Your task to perform on an android device: empty trash in the gmail app Image 0: 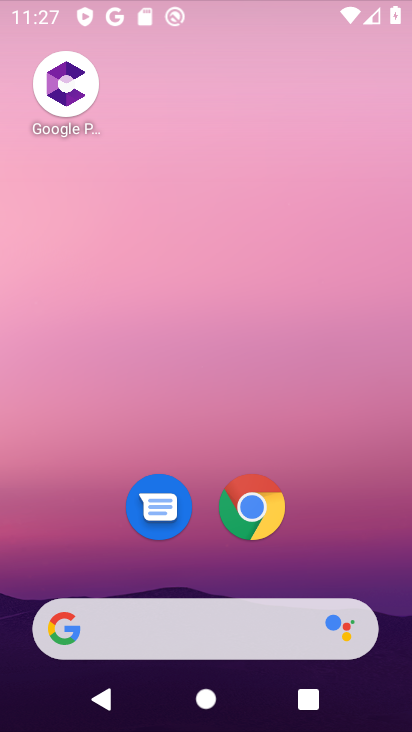
Step 0: press home button
Your task to perform on an android device: empty trash in the gmail app Image 1: 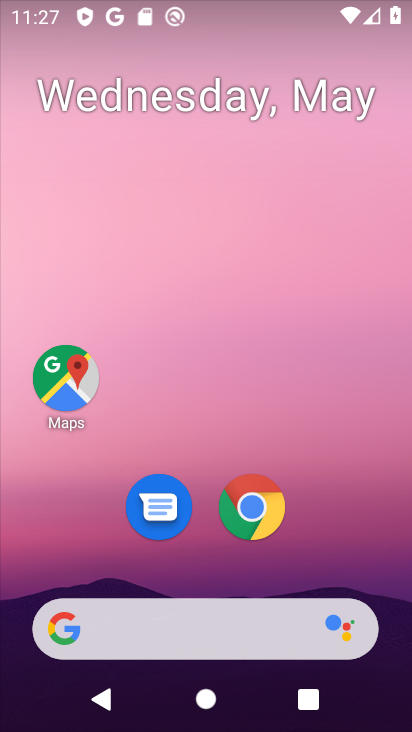
Step 1: drag from (355, 562) to (352, 116)
Your task to perform on an android device: empty trash in the gmail app Image 2: 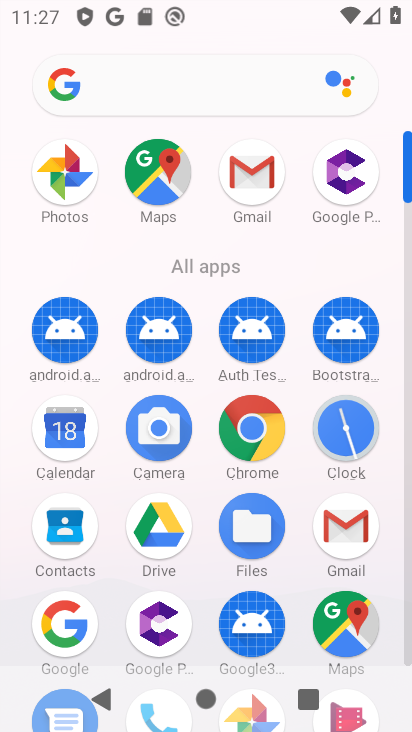
Step 2: click (229, 197)
Your task to perform on an android device: empty trash in the gmail app Image 3: 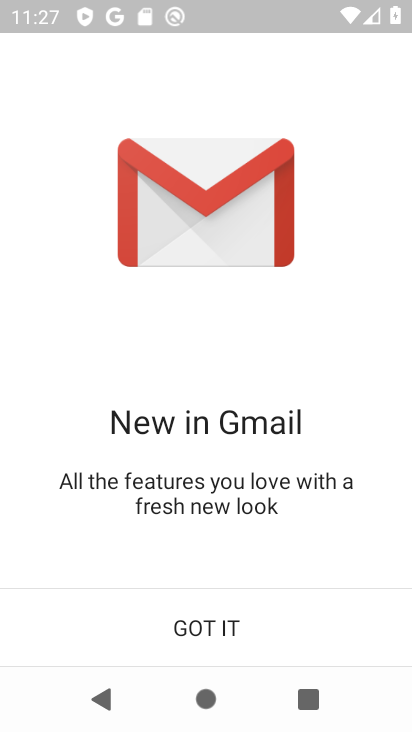
Step 3: click (231, 638)
Your task to perform on an android device: empty trash in the gmail app Image 4: 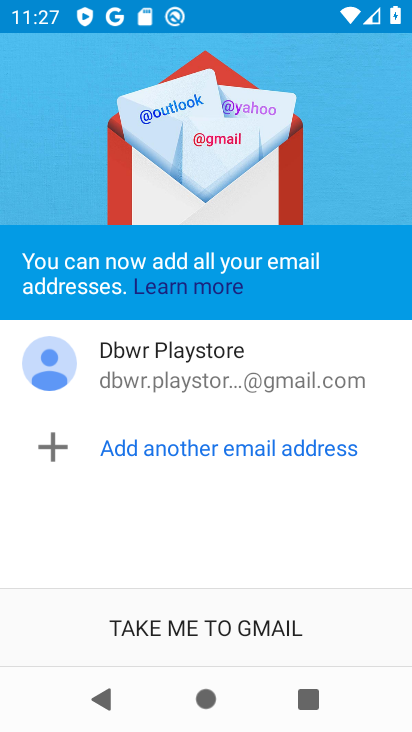
Step 4: click (231, 638)
Your task to perform on an android device: empty trash in the gmail app Image 5: 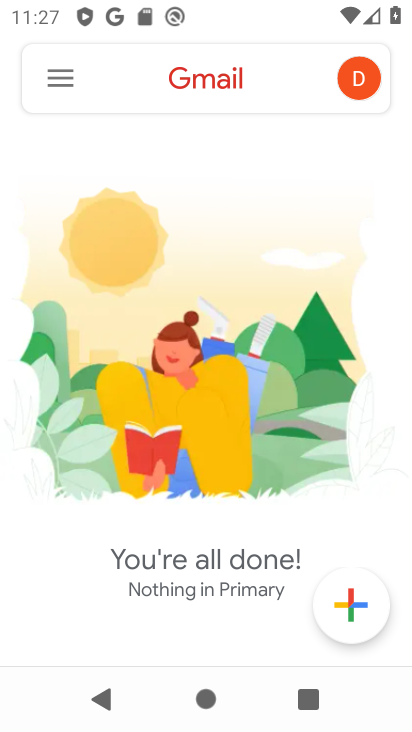
Step 5: click (55, 68)
Your task to perform on an android device: empty trash in the gmail app Image 6: 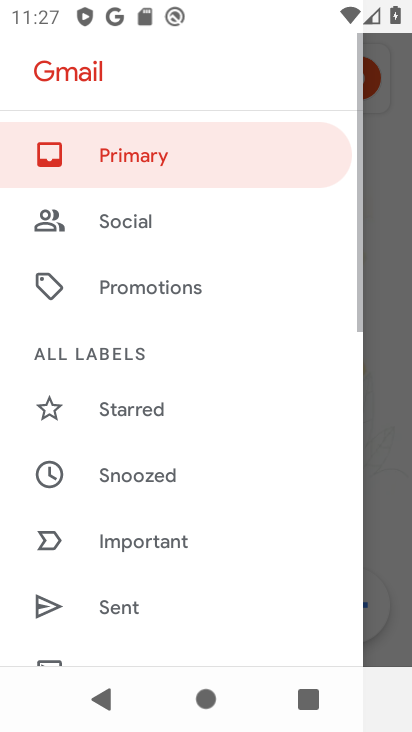
Step 6: drag from (142, 564) to (154, 221)
Your task to perform on an android device: empty trash in the gmail app Image 7: 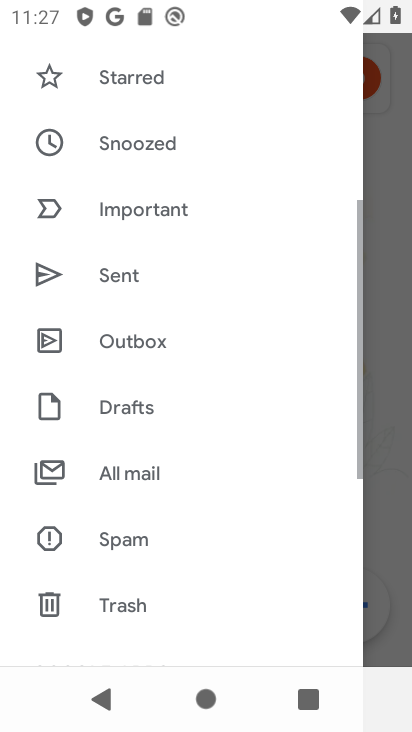
Step 7: click (137, 604)
Your task to perform on an android device: empty trash in the gmail app Image 8: 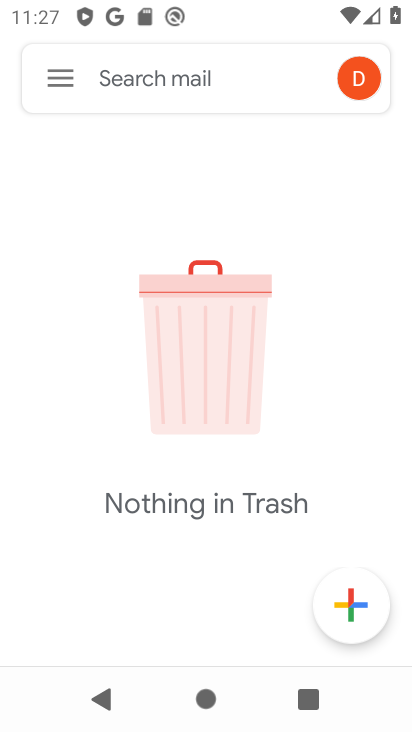
Step 8: task complete